Your task to perform on an android device: Go to privacy settings Image 0: 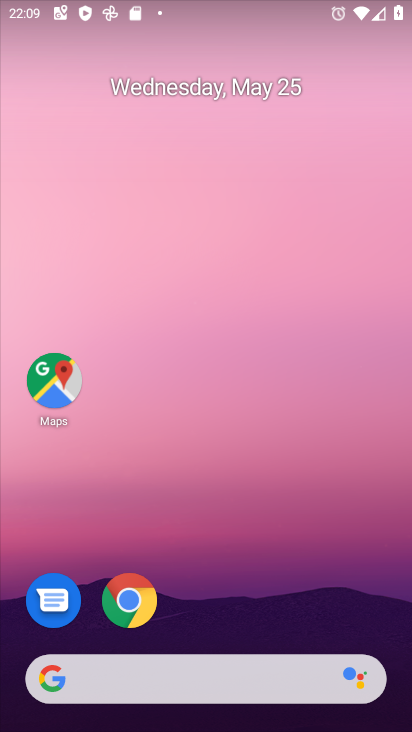
Step 0: drag from (370, 605) to (386, 219)
Your task to perform on an android device: Go to privacy settings Image 1: 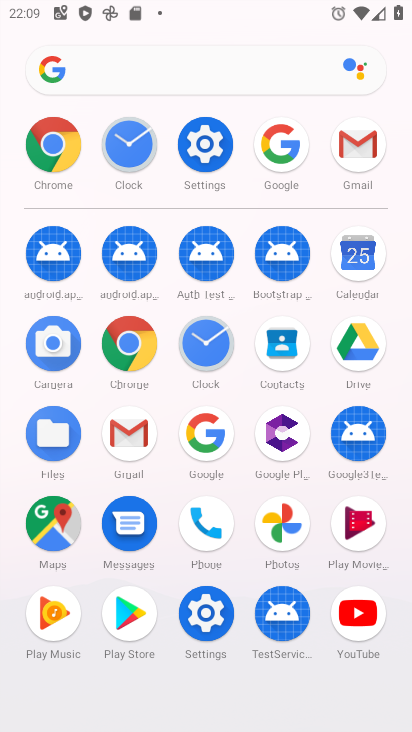
Step 1: click (188, 143)
Your task to perform on an android device: Go to privacy settings Image 2: 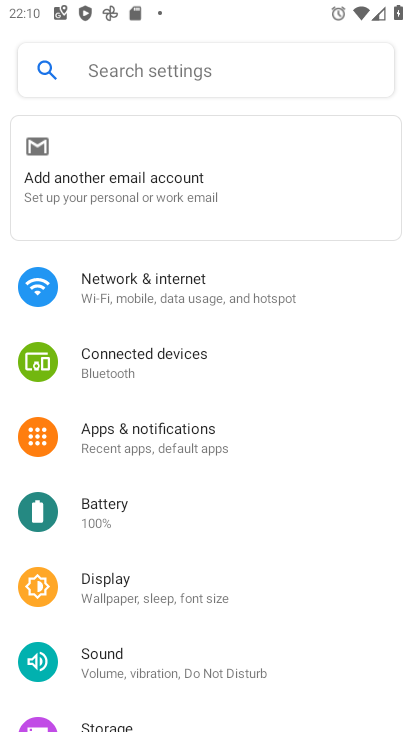
Step 2: drag from (222, 581) to (250, 344)
Your task to perform on an android device: Go to privacy settings Image 3: 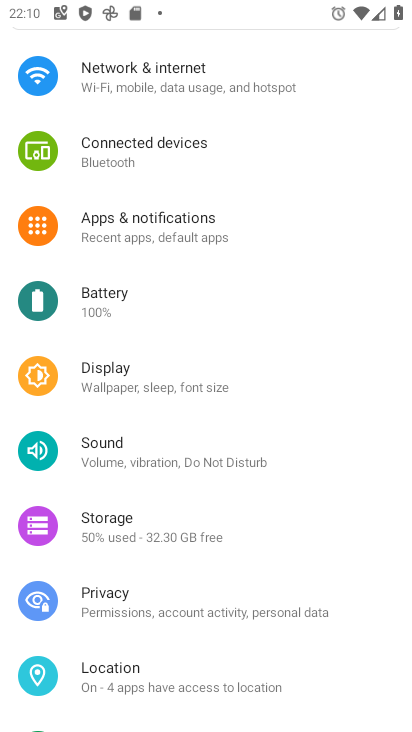
Step 3: click (179, 605)
Your task to perform on an android device: Go to privacy settings Image 4: 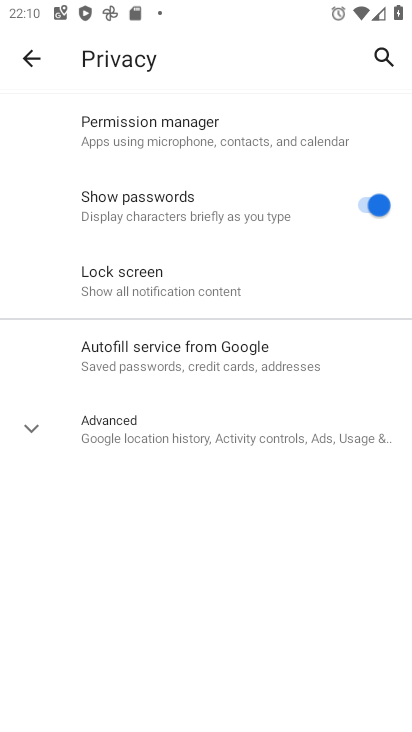
Step 4: task complete